Your task to perform on an android device: Find coffee shops on Maps Image 0: 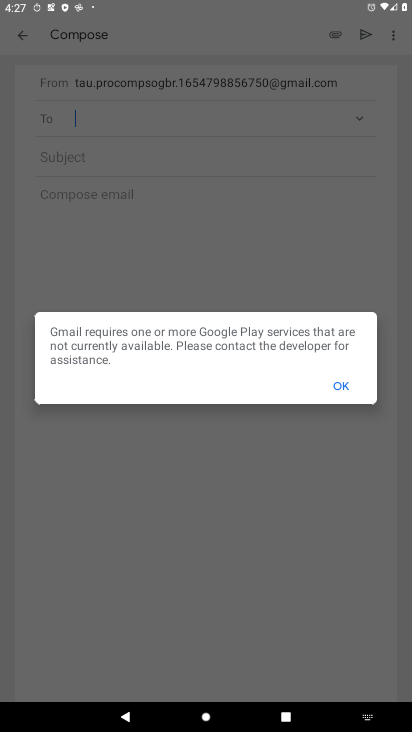
Step 0: press home button
Your task to perform on an android device: Find coffee shops on Maps Image 1: 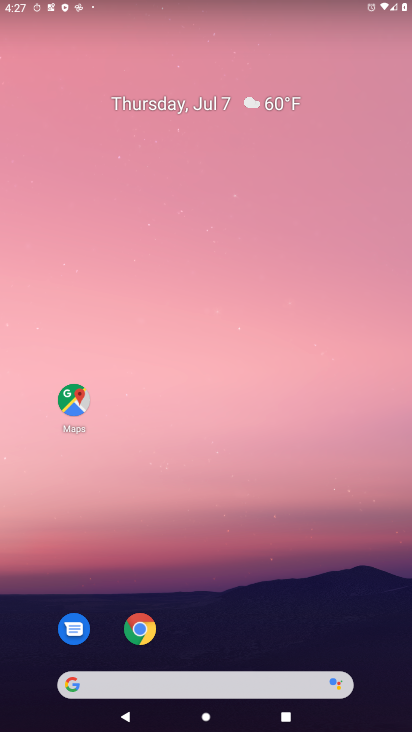
Step 1: drag from (204, 644) to (215, 23)
Your task to perform on an android device: Find coffee shops on Maps Image 2: 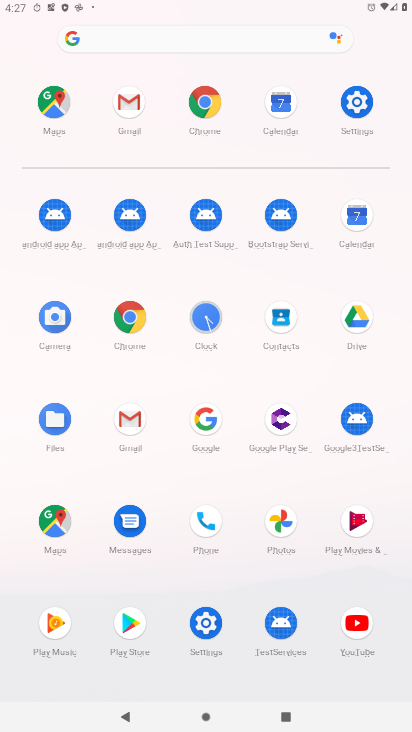
Step 2: click (61, 536)
Your task to perform on an android device: Find coffee shops on Maps Image 3: 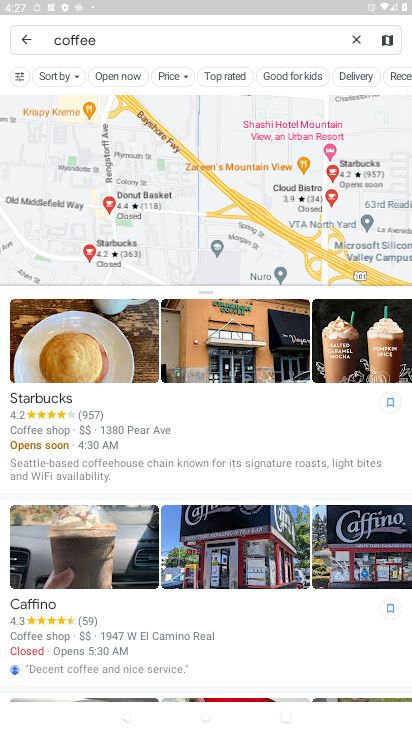
Step 3: click (353, 43)
Your task to perform on an android device: Find coffee shops on Maps Image 4: 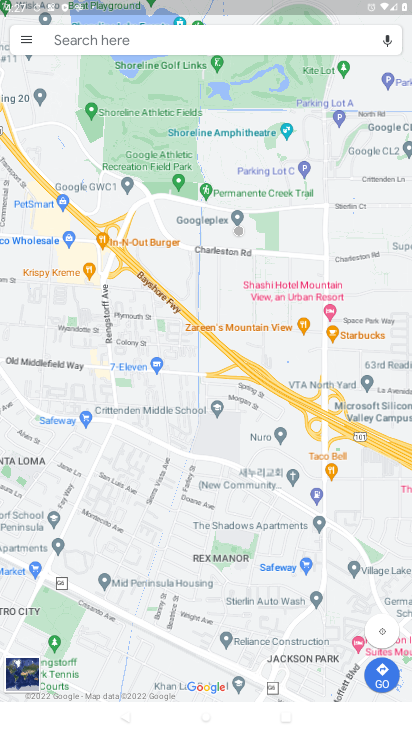
Step 4: click (257, 55)
Your task to perform on an android device: Find coffee shops on Maps Image 5: 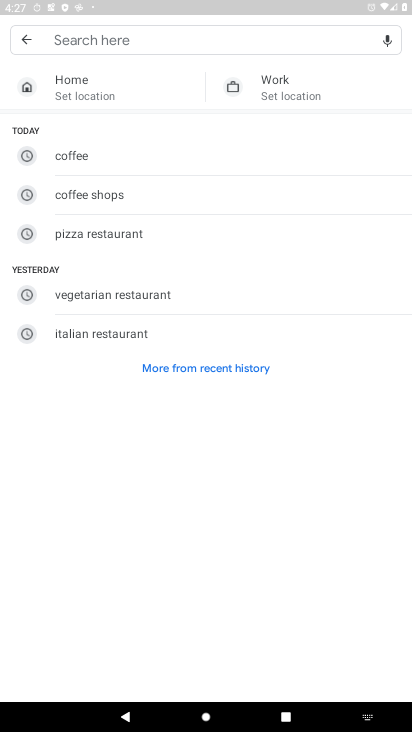
Step 5: click (108, 193)
Your task to perform on an android device: Find coffee shops on Maps Image 6: 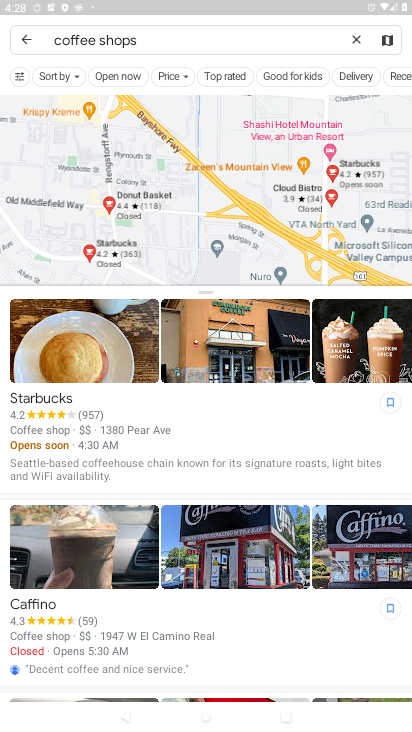
Step 6: task complete